Your task to perform on an android device: check battery use Image 0: 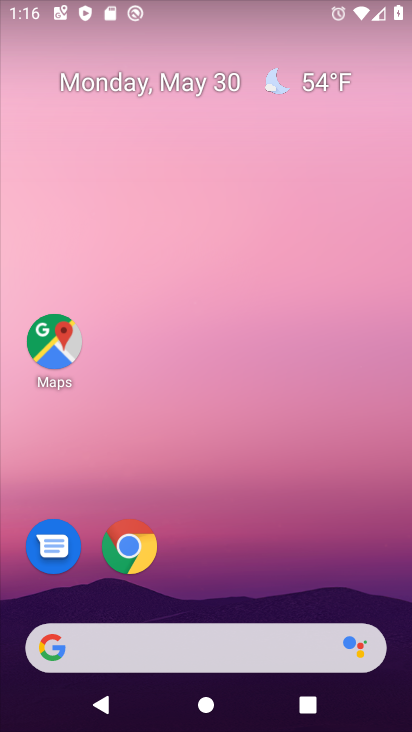
Step 0: press home button
Your task to perform on an android device: check battery use Image 1: 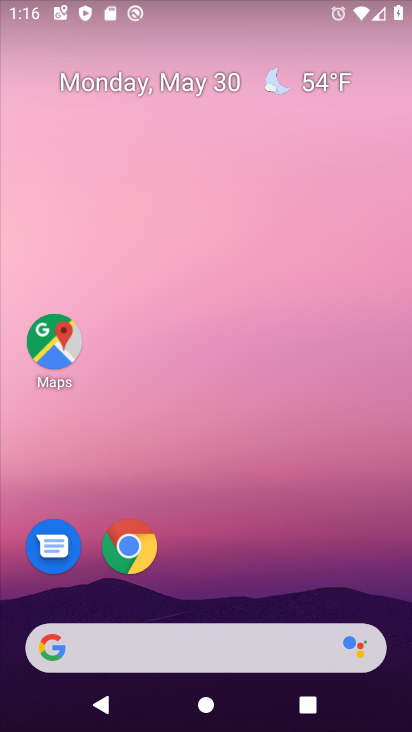
Step 1: drag from (248, 601) to (256, 221)
Your task to perform on an android device: check battery use Image 2: 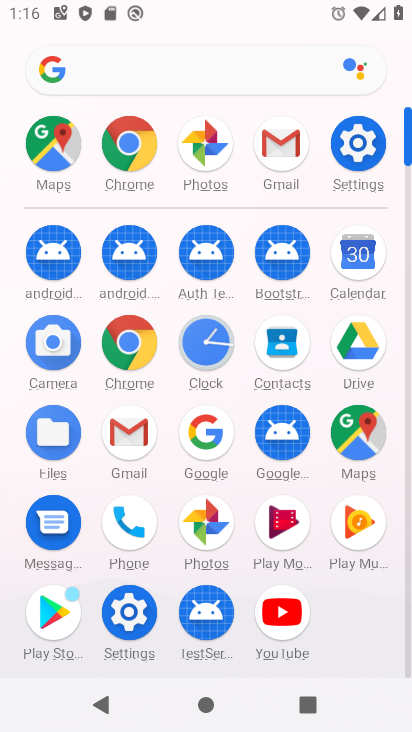
Step 2: click (363, 160)
Your task to perform on an android device: check battery use Image 3: 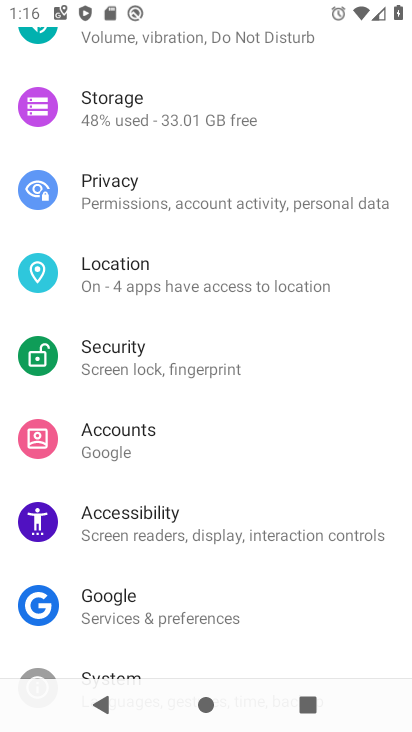
Step 3: drag from (276, 153) to (260, 452)
Your task to perform on an android device: check battery use Image 4: 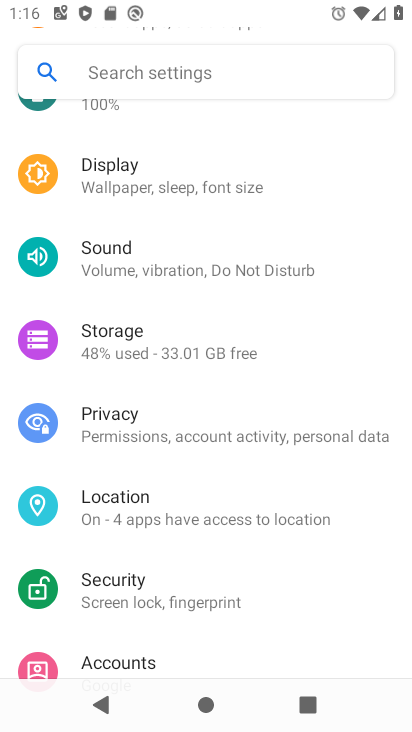
Step 4: click (100, 105)
Your task to perform on an android device: check battery use Image 5: 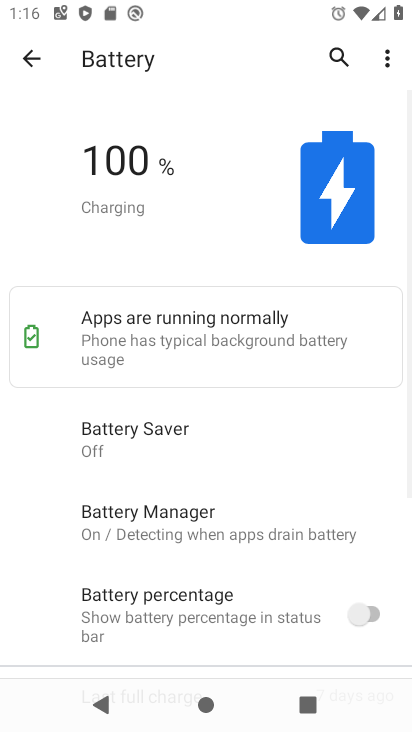
Step 5: click (394, 62)
Your task to perform on an android device: check battery use Image 6: 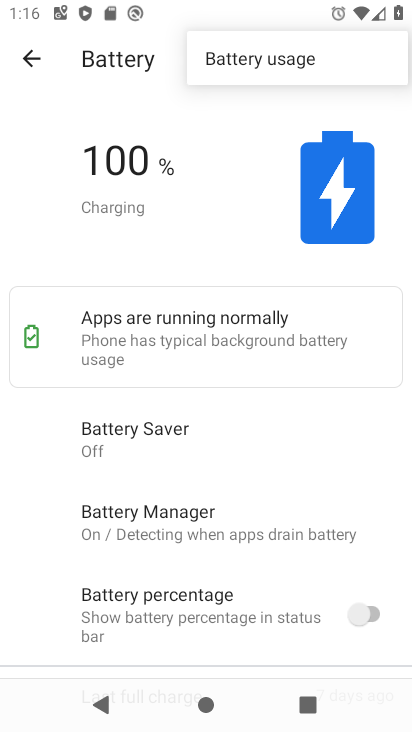
Step 6: click (244, 65)
Your task to perform on an android device: check battery use Image 7: 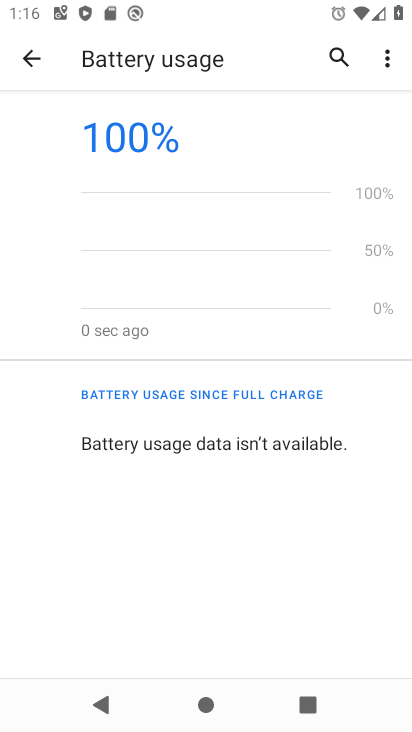
Step 7: task complete